Your task to perform on an android device: Open Reddit.com Image 0: 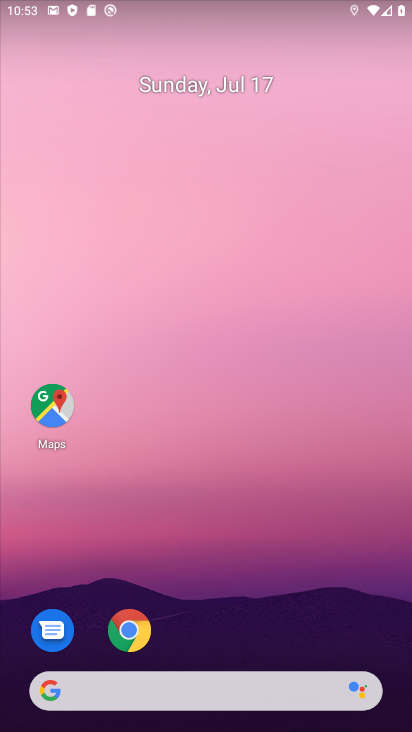
Step 0: drag from (206, 670) to (232, 157)
Your task to perform on an android device: Open Reddit.com Image 1: 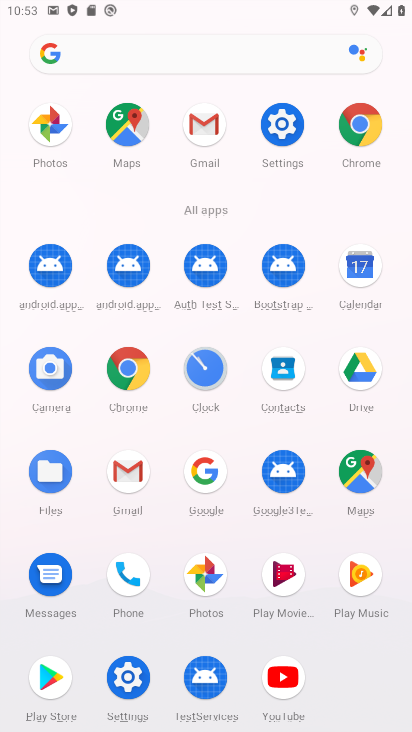
Step 1: click (139, 369)
Your task to perform on an android device: Open Reddit.com Image 2: 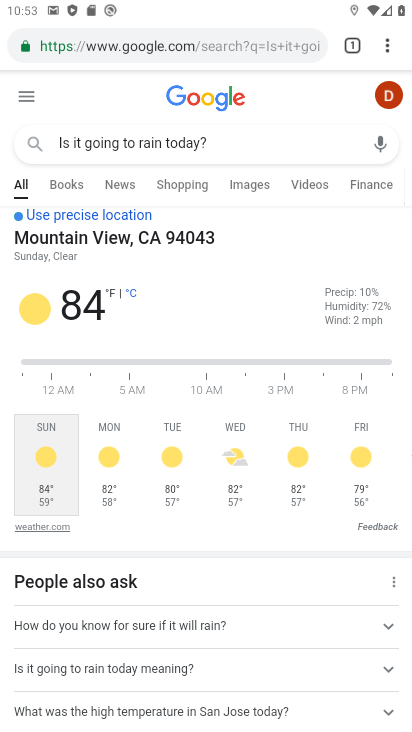
Step 2: click (259, 49)
Your task to perform on an android device: Open Reddit.com Image 3: 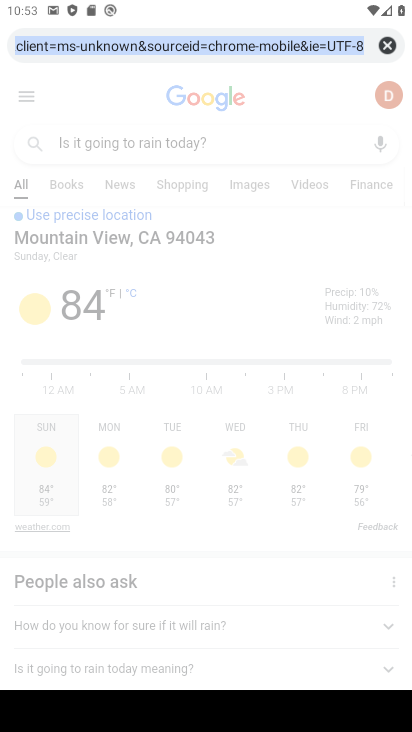
Step 3: click (383, 39)
Your task to perform on an android device: Open Reddit.com Image 4: 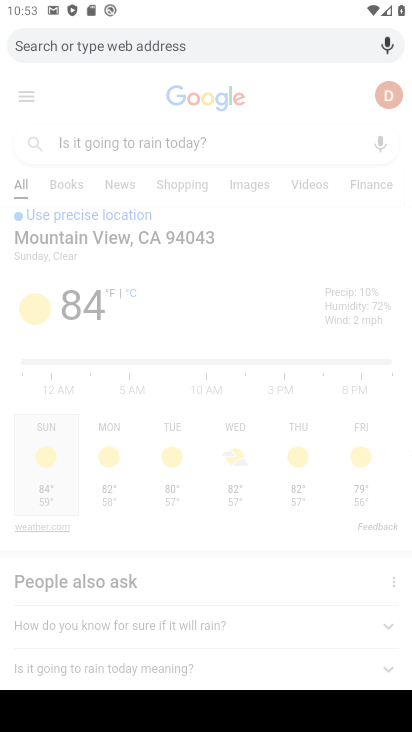
Step 4: type "Reddit.com"
Your task to perform on an android device: Open Reddit.com Image 5: 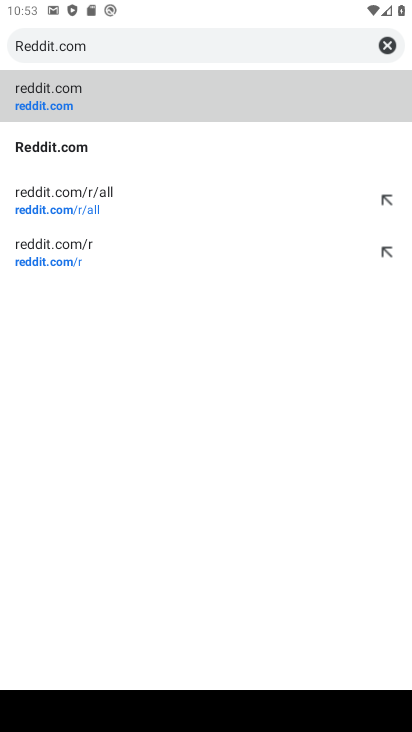
Step 5: click (167, 95)
Your task to perform on an android device: Open Reddit.com Image 6: 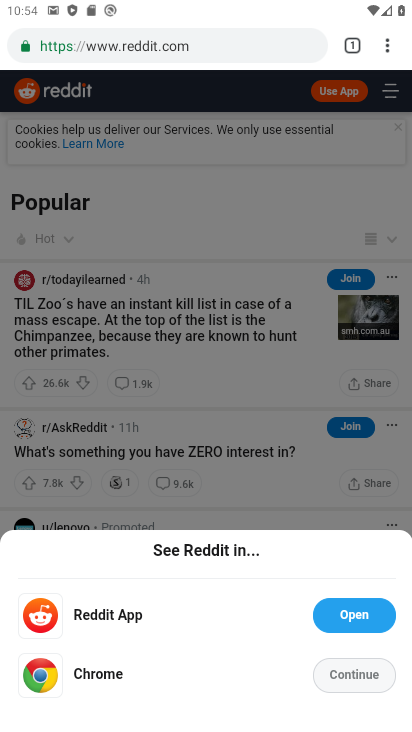
Step 6: click (358, 680)
Your task to perform on an android device: Open Reddit.com Image 7: 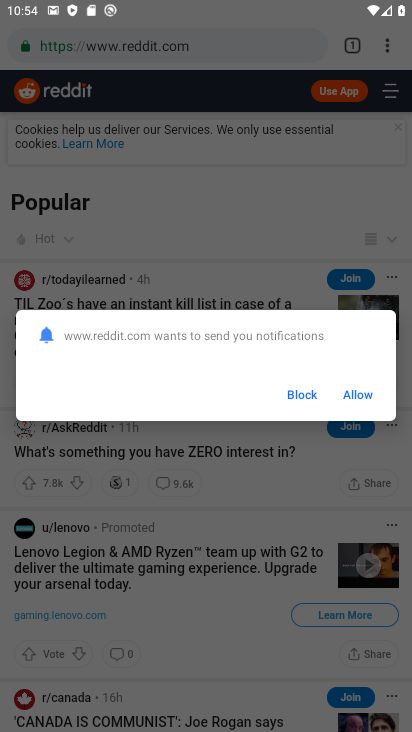
Step 7: click (352, 391)
Your task to perform on an android device: Open Reddit.com Image 8: 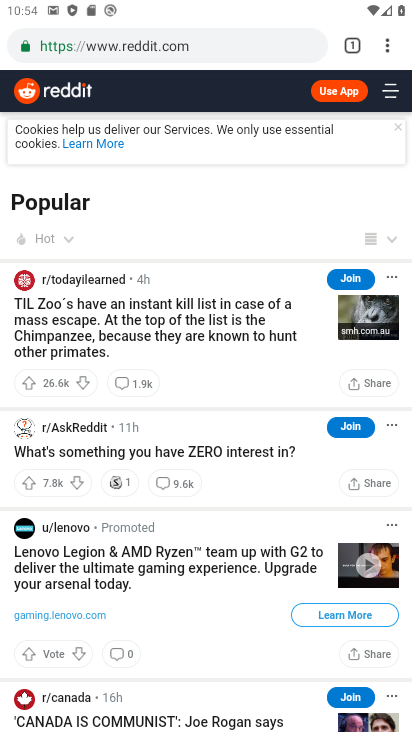
Step 8: task complete